Your task to perform on an android device: create a new album in the google photos Image 0: 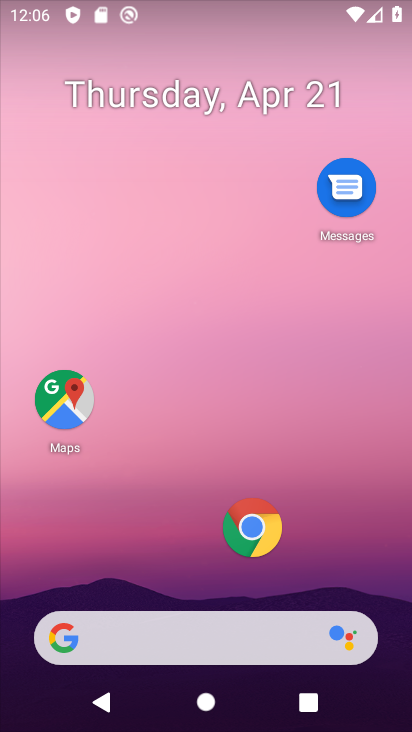
Step 0: drag from (172, 542) to (149, 58)
Your task to perform on an android device: create a new album in the google photos Image 1: 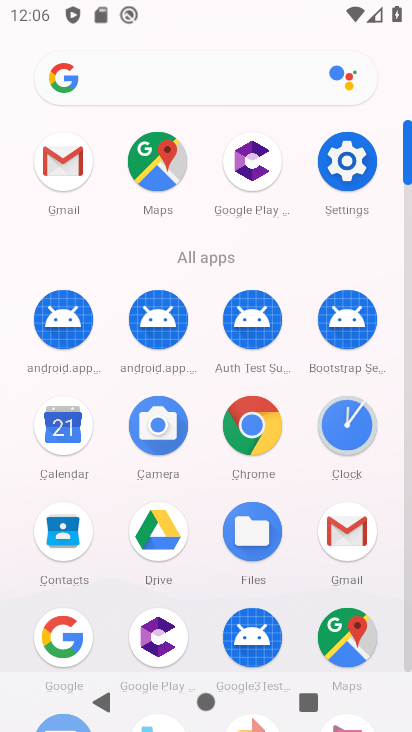
Step 1: drag from (187, 596) to (165, 379)
Your task to perform on an android device: create a new album in the google photos Image 2: 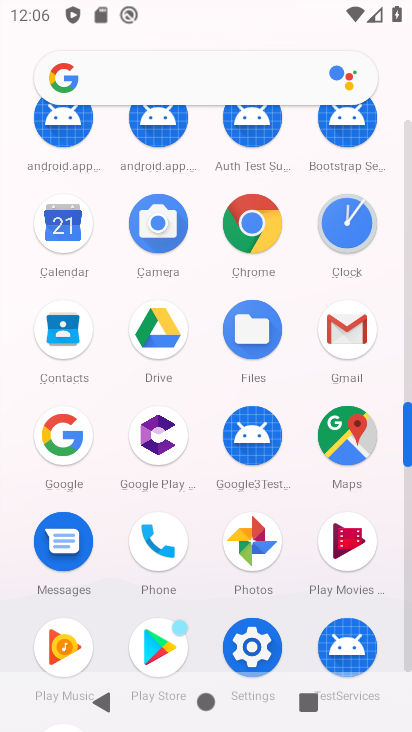
Step 2: click (252, 554)
Your task to perform on an android device: create a new album in the google photos Image 3: 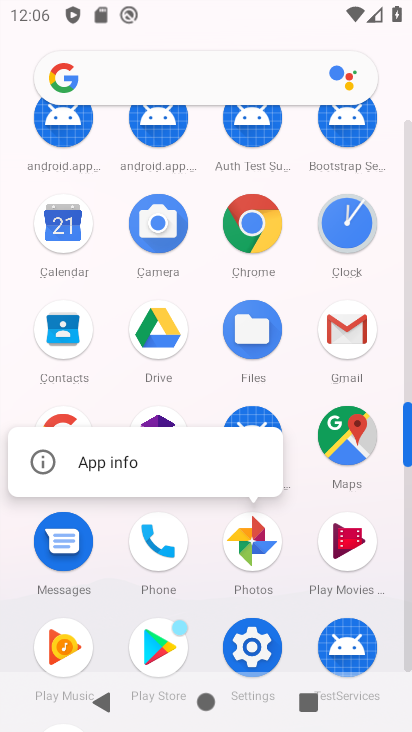
Step 3: click (252, 553)
Your task to perform on an android device: create a new album in the google photos Image 4: 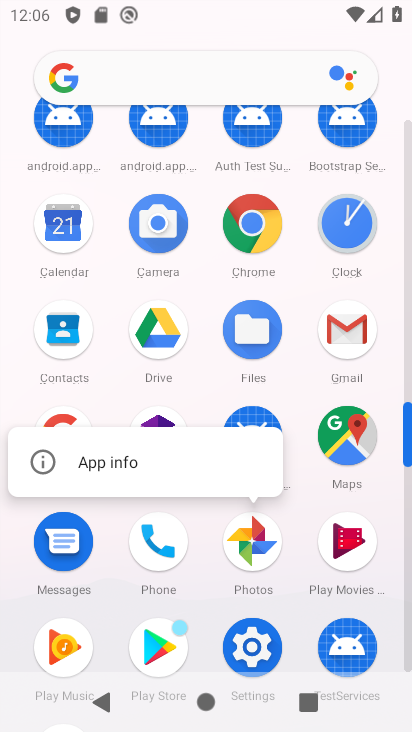
Step 4: click (252, 553)
Your task to perform on an android device: create a new album in the google photos Image 5: 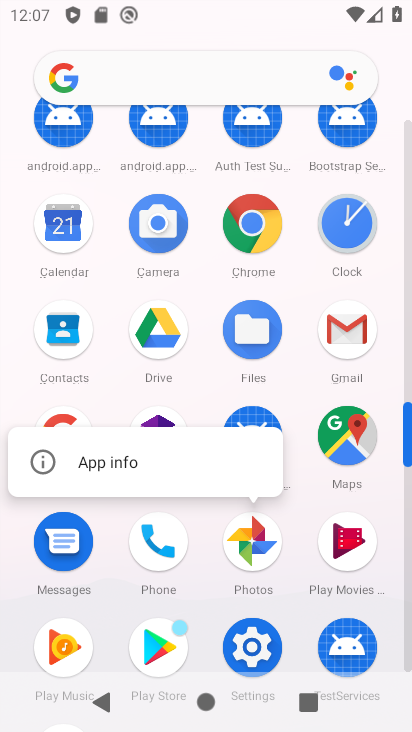
Step 5: click (246, 551)
Your task to perform on an android device: create a new album in the google photos Image 6: 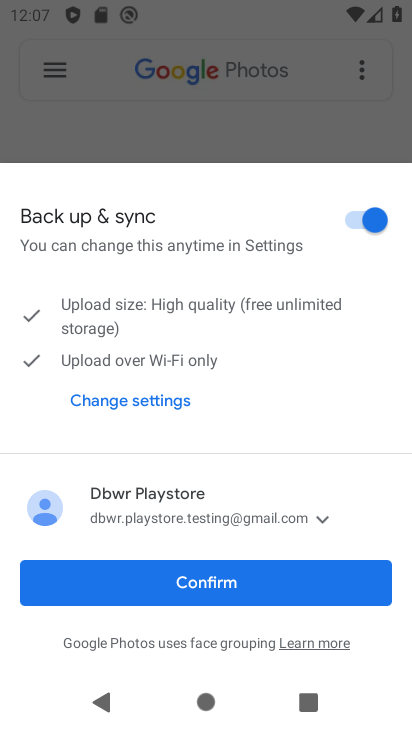
Step 6: click (156, 633)
Your task to perform on an android device: create a new album in the google photos Image 7: 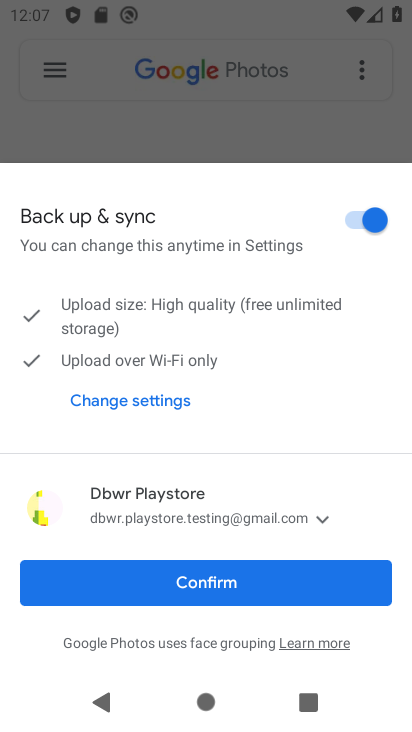
Step 7: click (152, 595)
Your task to perform on an android device: create a new album in the google photos Image 8: 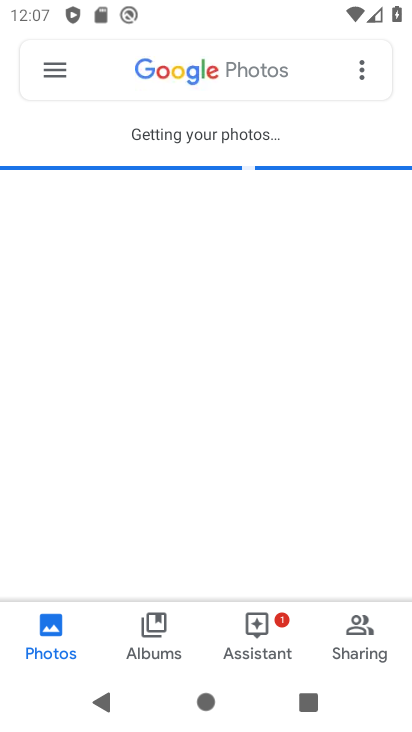
Step 8: click (143, 615)
Your task to perform on an android device: create a new album in the google photos Image 9: 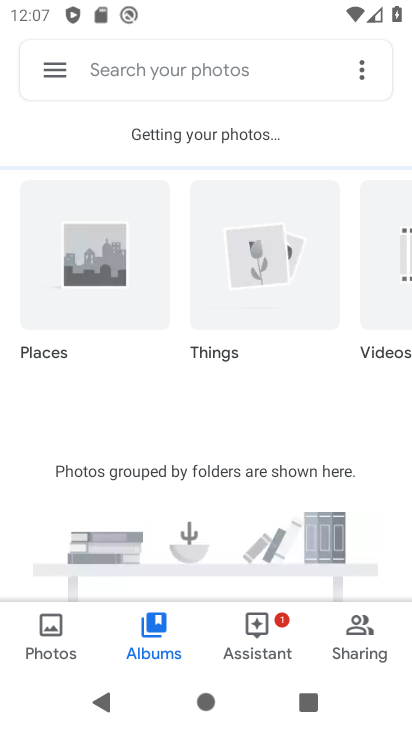
Step 9: drag from (231, 509) to (205, 372)
Your task to perform on an android device: create a new album in the google photos Image 10: 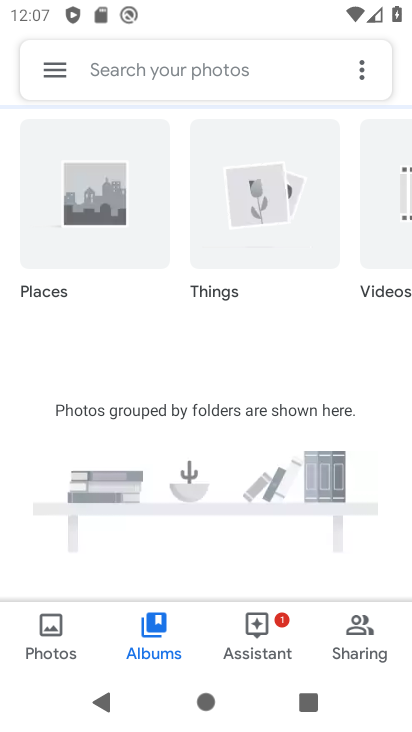
Step 10: drag from (315, 215) to (368, 383)
Your task to perform on an android device: create a new album in the google photos Image 11: 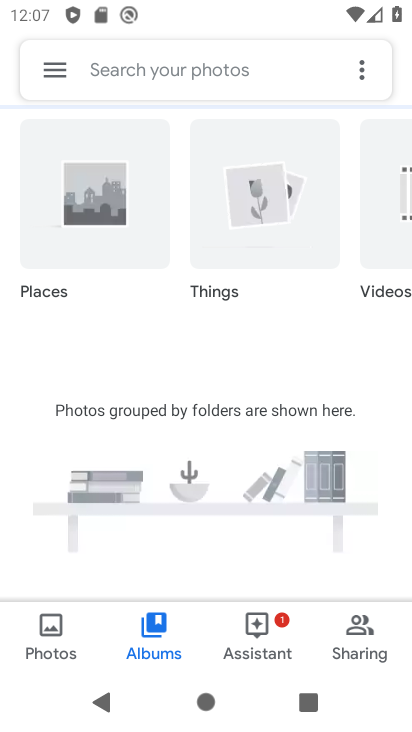
Step 11: click (354, 69)
Your task to perform on an android device: create a new album in the google photos Image 12: 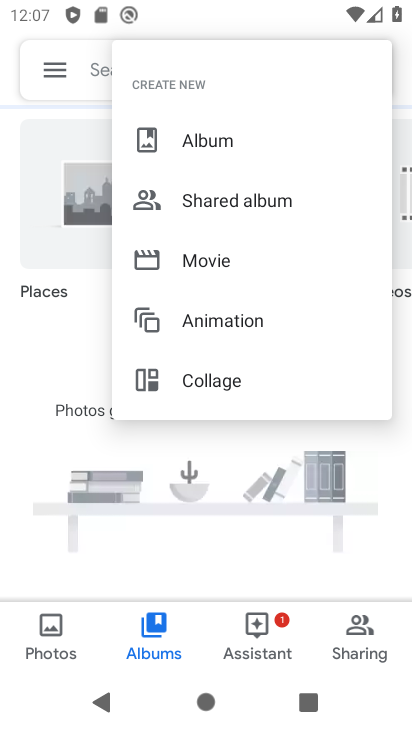
Step 12: click (305, 129)
Your task to perform on an android device: create a new album in the google photos Image 13: 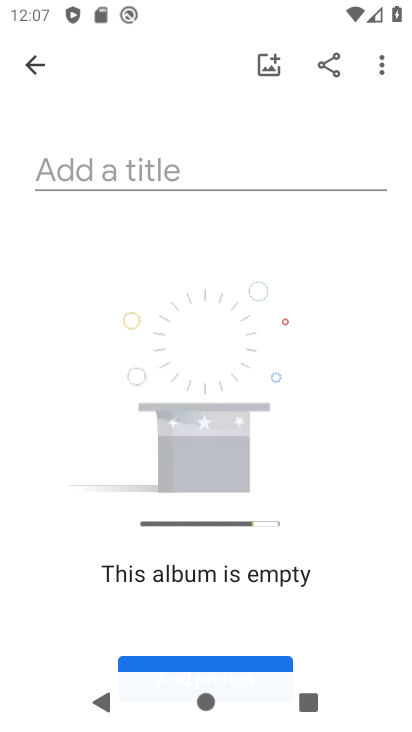
Step 13: click (141, 178)
Your task to perform on an android device: create a new album in the google photos Image 14: 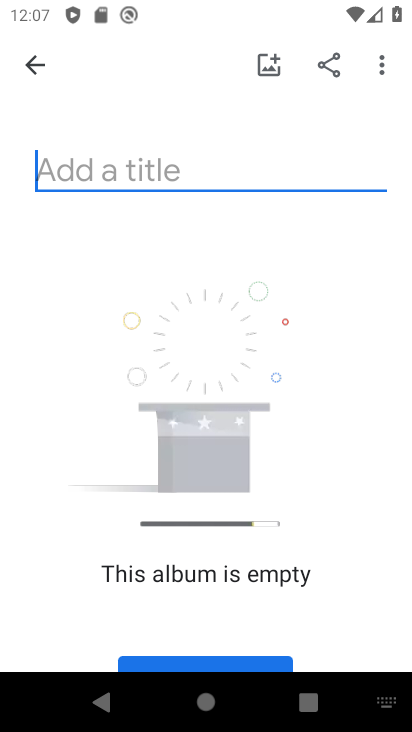
Step 14: type "vbcnxmz,"
Your task to perform on an android device: create a new album in the google photos Image 15: 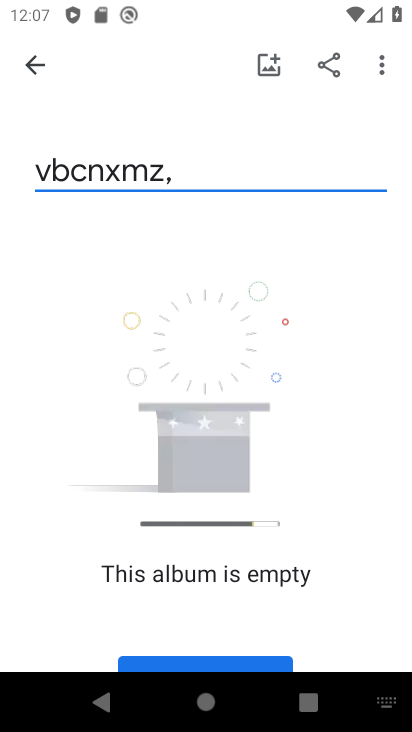
Step 15: drag from (231, 446) to (266, 311)
Your task to perform on an android device: create a new album in the google photos Image 16: 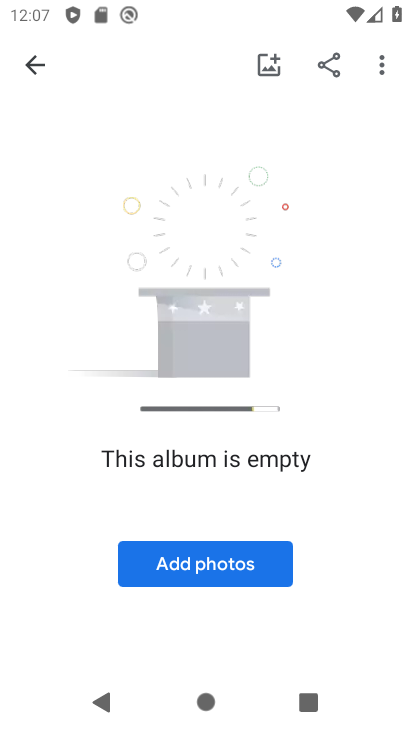
Step 16: click (234, 556)
Your task to perform on an android device: create a new album in the google photos Image 17: 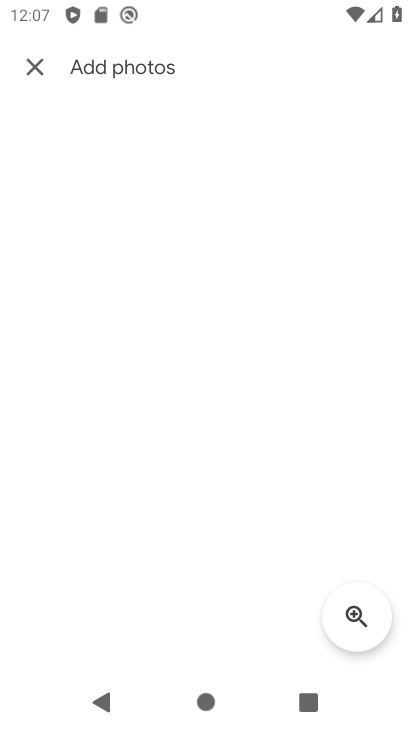
Step 17: click (27, 64)
Your task to perform on an android device: create a new album in the google photos Image 18: 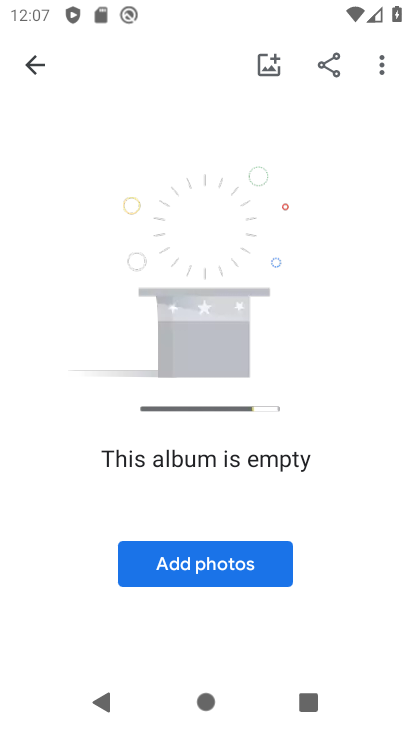
Step 18: click (134, 572)
Your task to perform on an android device: create a new album in the google photos Image 19: 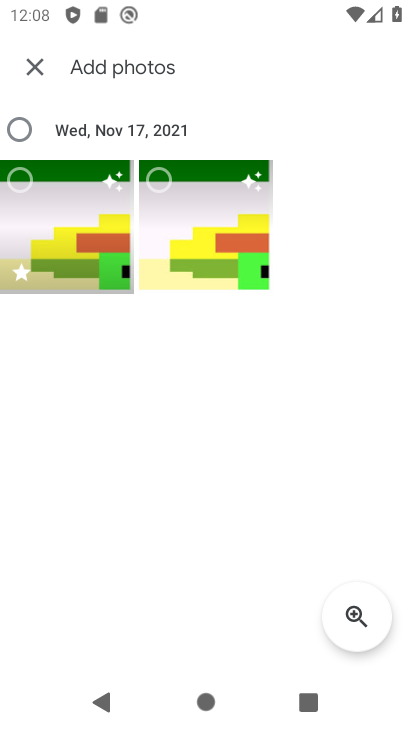
Step 19: click (66, 248)
Your task to perform on an android device: create a new album in the google photos Image 20: 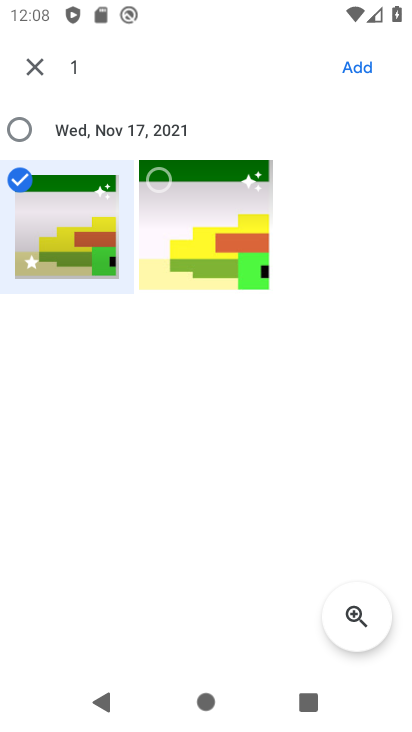
Step 20: click (350, 71)
Your task to perform on an android device: create a new album in the google photos Image 21: 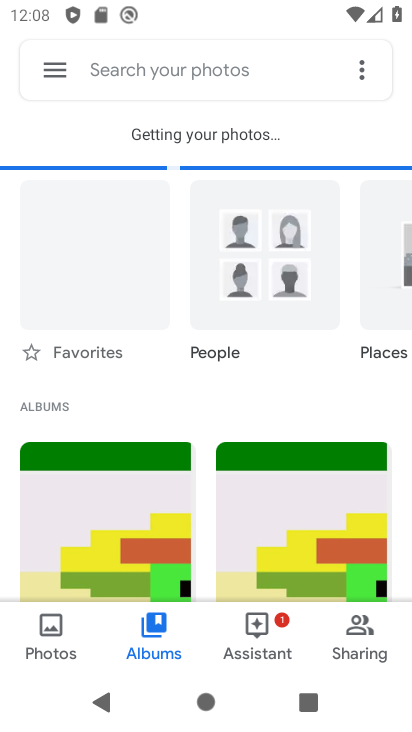
Step 21: task complete